Your task to perform on an android device: Open settings on Google Maps Image 0: 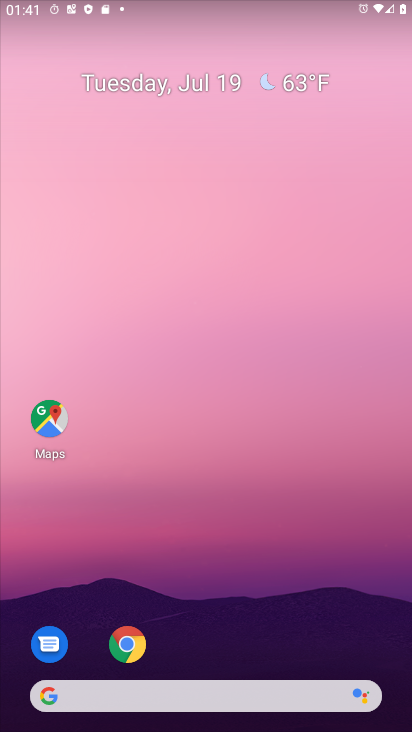
Step 0: drag from (197, 704) to (191, 123)
Your task to perform on an android device: Open settings on Google Maps Image 1: 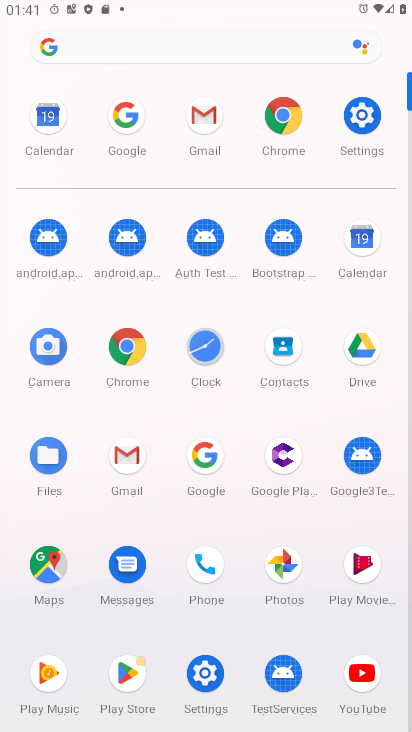
Step 1: click (45, 565)
Your task to perform on an android device: Open settings on Google Maps Image 2: 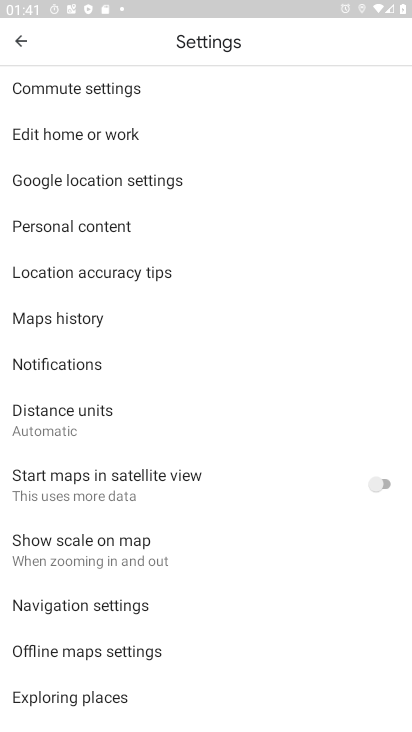
Step 2: task complete